Your task to perform on an android device: open app "Yahoo Mail" (install if not already installed), go to login, and select forgot password Image 0: 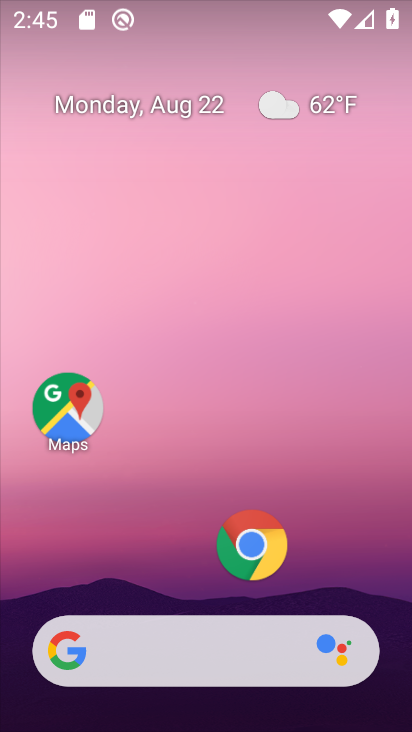
Step 0: drag from (150, 479) to (235, 3)
Your task to perform on an android device: open app "Yahoo Mail" (install if not already installed), go to login, and select forgot password Image 1: 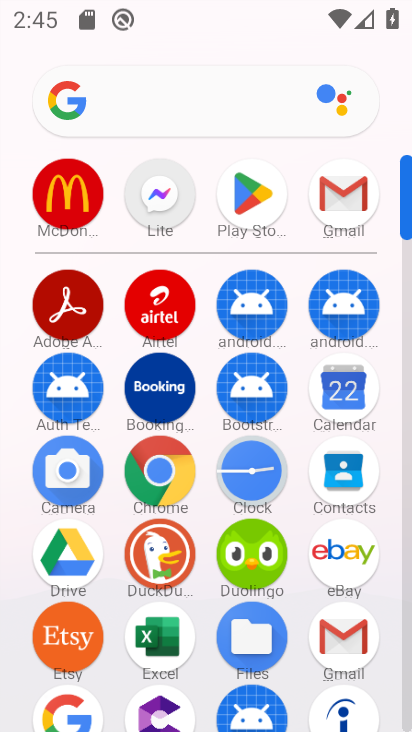
Step 1: click (256, 202)
Your task to perform on an android device: open app "Yahoo Mail" (install if not already installed), go to login, and select forgot password Image 2: 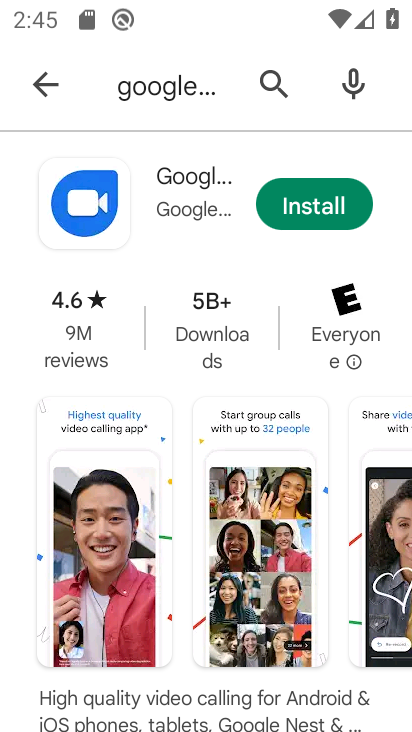
Step 2: click (273, 80)
Your task to perform on an android device: open app "Yahoo Mail" (install if not already installed), go to login, and select forgot password Image 3: 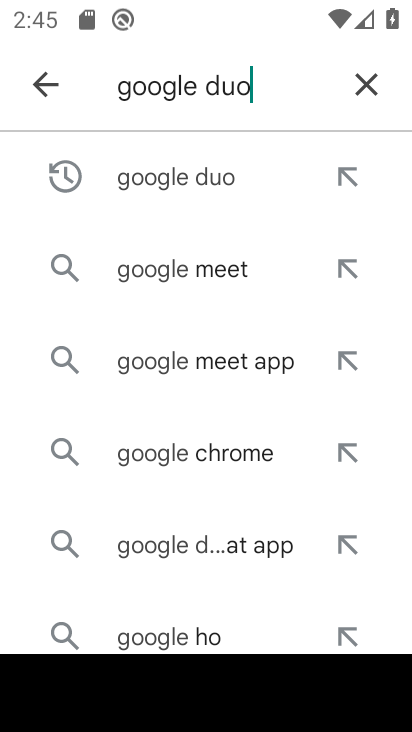
Step 3: click (362, 73)
Your task to perform on an android device: open app "Yahoo Mail" (install if not already installed), go to login, and select forgot password Image 4: 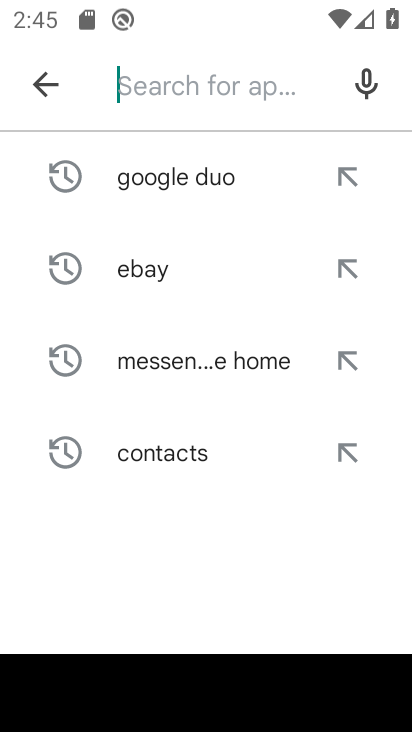
Step 4: click (167, 78)
Your task to perform on an android device: open app "Yahoo Mail" (install if not already installed), go to login, and select forgot password Image 5: 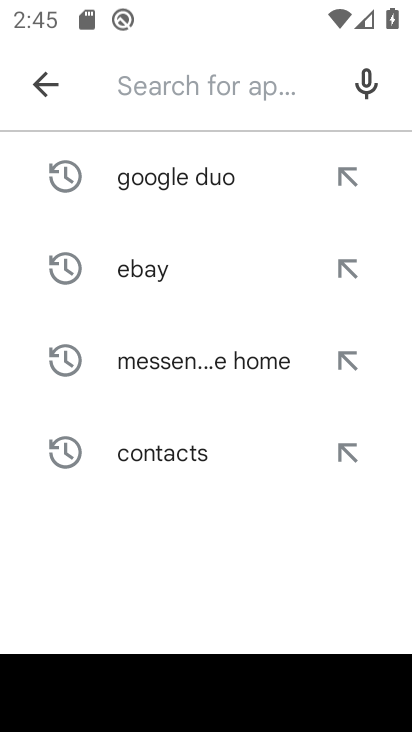
Step 5: type "Yahoo Mail"
Your task to perform on an android device: open app "Yahoo Mail" (install if not already installed), go to login, and select forgot password Image 6: 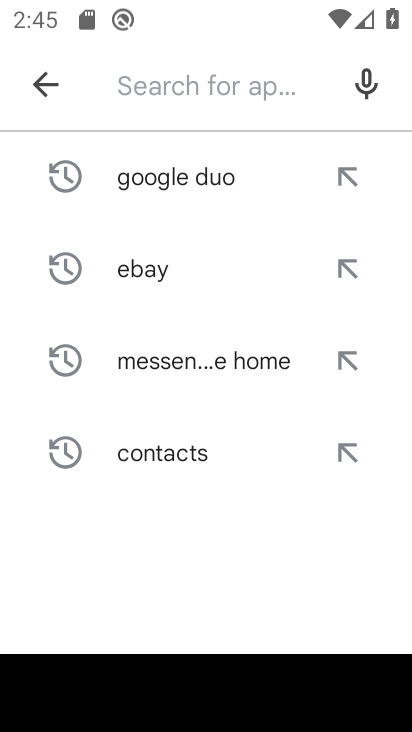
Step 6: click (212, 593)
Your task to perform on an android device: open app "Yahoo Mail" (install if not already installed), go to login, and select forgot password Image 7: 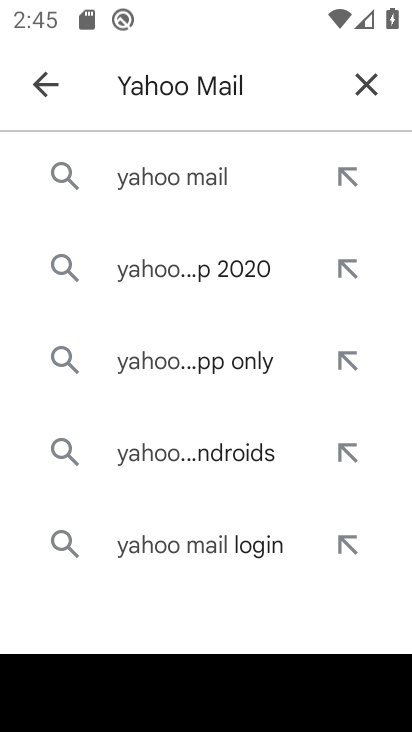
Step 7: click (190, 187)
Your task to perform on an android device: open app "Yahoo Mail" (install if not already installed), go to login, and select forgot password Image 8: 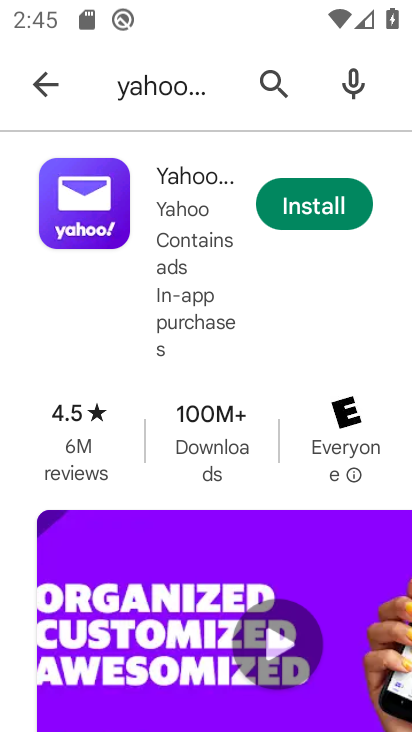
Step 8: click (353, 202)
Your task to perform on an android device: open app "Yahoo Mail" (install if not already installed), go to login, and select forgot password Image 9: 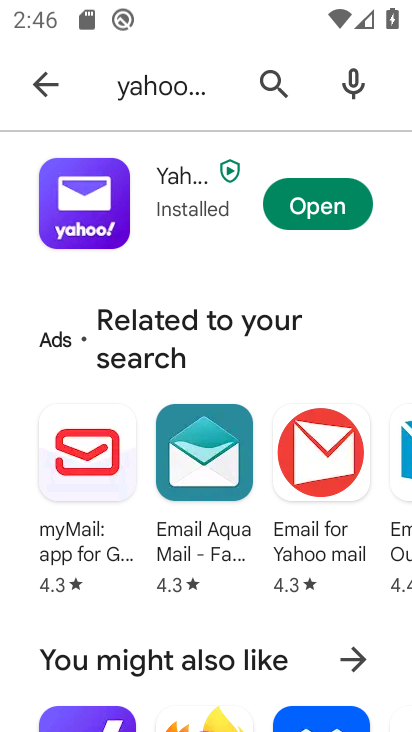
Step 9: click (305, 189)
Your task to perform on an android device: open app "Yahoo Mail" (install if not already installed), go to login, and select forgot password Image 10: 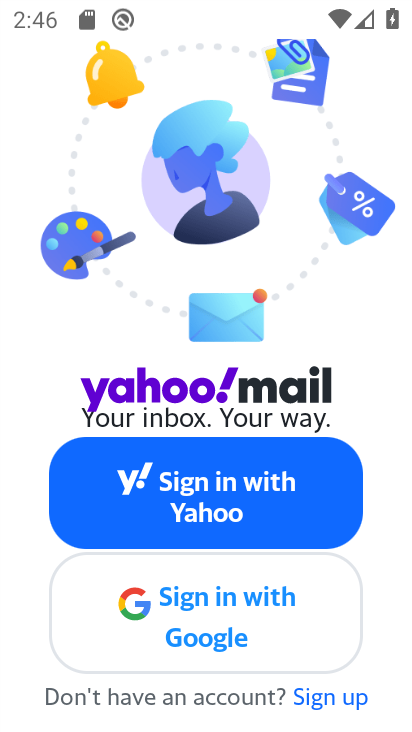
Step 10: click (251, 478)
Your task to perform on an android device: open app "Yahoo Mail" (install if not already installed), go to login, and select forgot password Image 11: 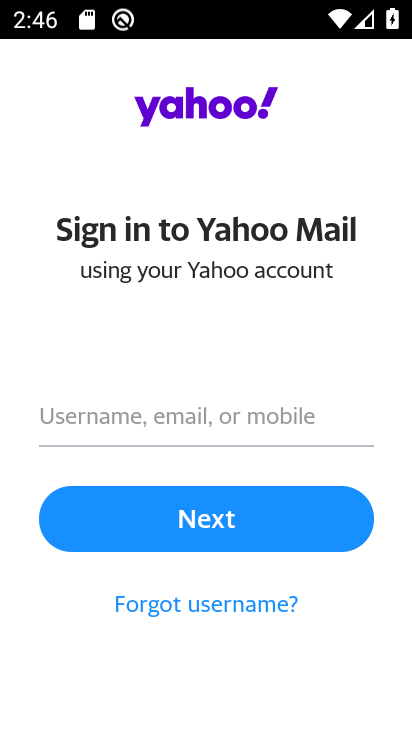
Step 11: task complete